Your task to perform on an android device: open the mobile data screen to see how much data has been used Image 0: 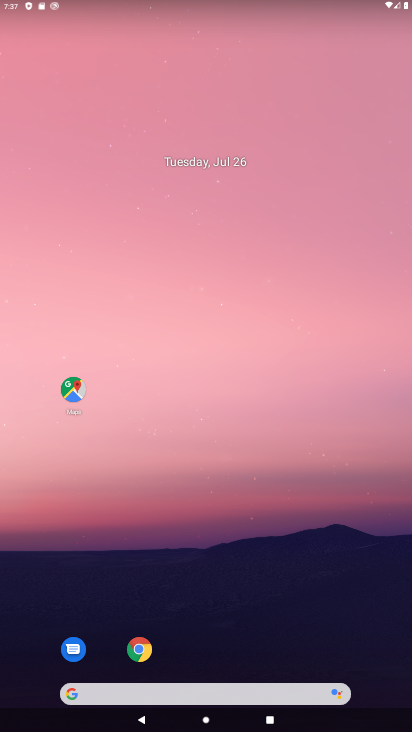
Step 0: drag from (274, 600) to (257, 267)
Your task to perform on an android device: open the mobile data screen to see how much data has been used Image 1: 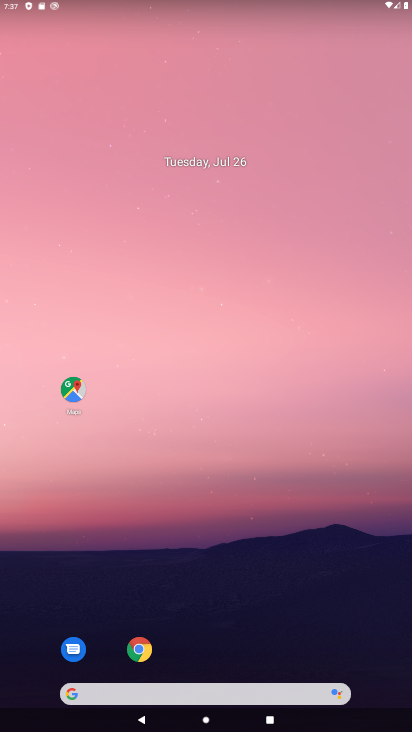
Step 1: drag from (205, 641) to (223, 250)
Your task to perform on an android device: open the mobile data screen to see how much data has been used Image 2: 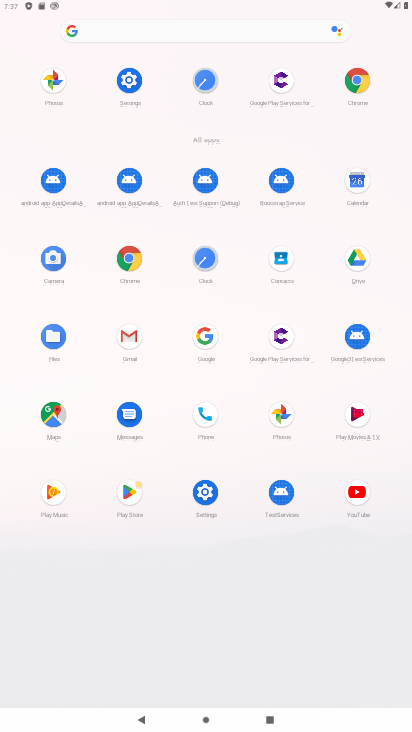
Step 2: click (204, 490)
Your task to perform on an android device: open the mobile data screen to see how much data has been used Image 3: 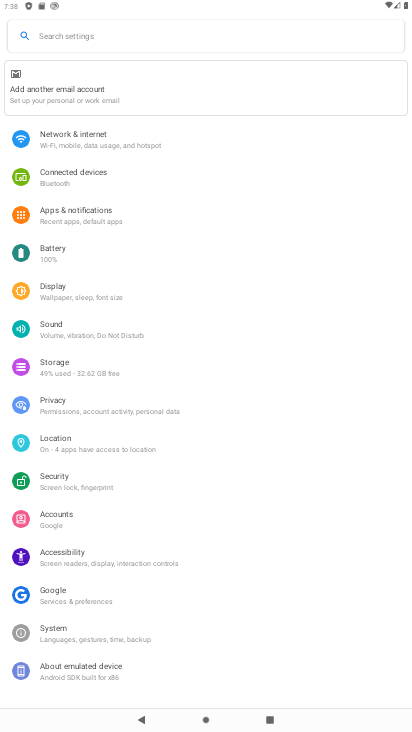
Step 3: click (73, 134)
Your task to perform on an android device: open the mobile data screen to see how much data has been used Image 4: 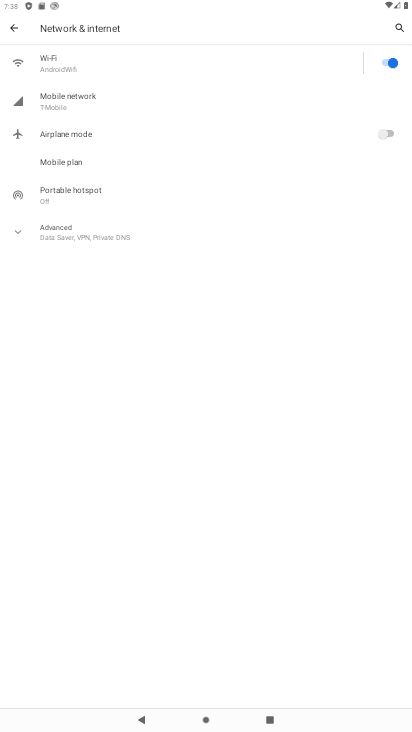
Step 4: click (54, 96)
Your task to perform on an android device: open the mobile data screen to see how much data has been used Image 5: 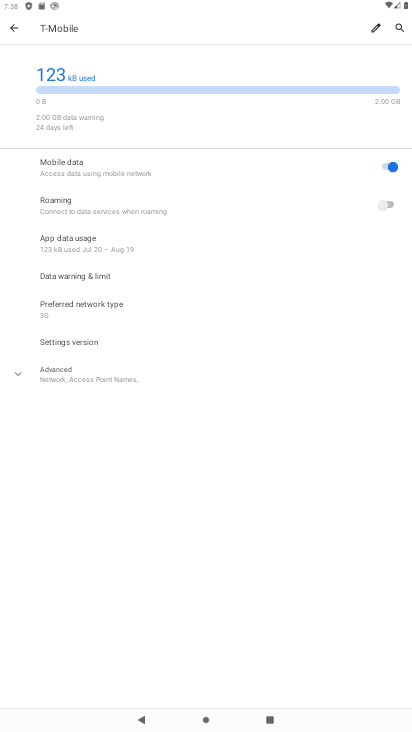
Step 5: task complete